Your task to perform on an android device: Go to Android settings Image 0: 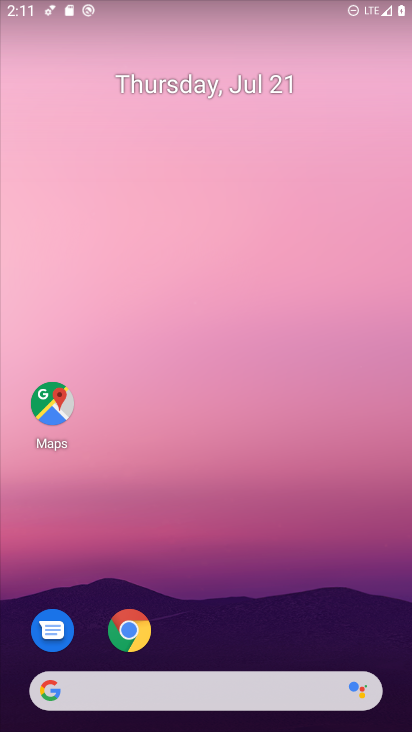
Step 0: drag from (313, 575) to (285, 157)
Your task to perform on an android device: Go to Android settings Image 1: 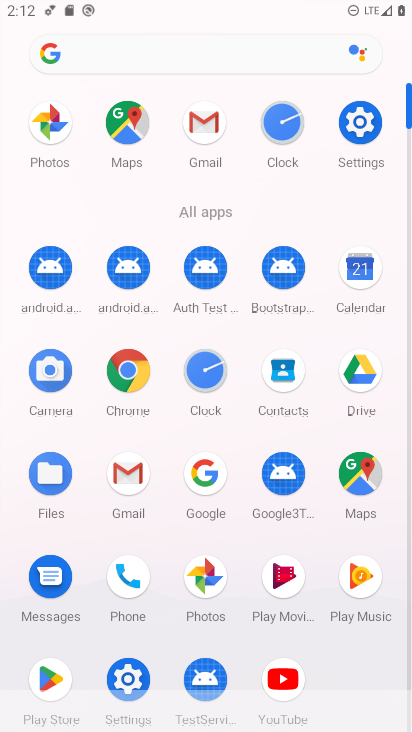
Step 1: click (117, 695)
Your task to perform on an android device: Go to Android settings Image 2: 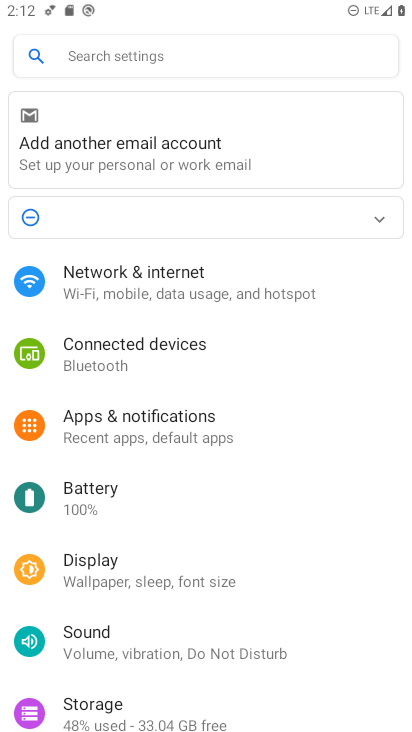
Step 2: task complete